Your task to perform on an android device: Go to internet settings Image 0: 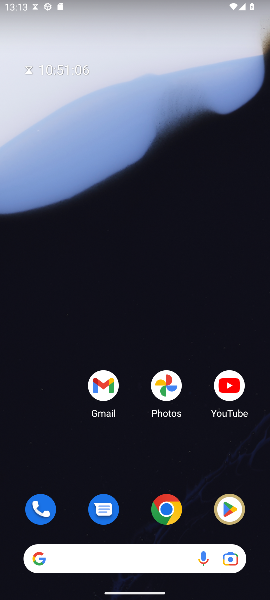
Step 0: press home button
Your task to perform on an android device: Go to internet settings Image 1: 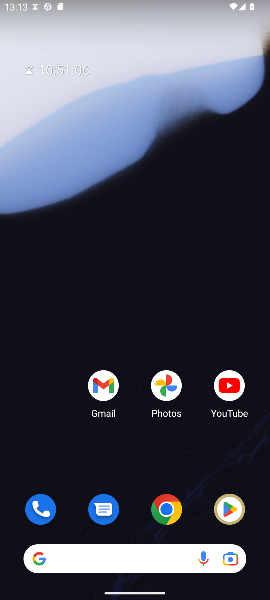
Step 1: drag from (137, 528) to (140, 73)
Your task to perform on an android device: Go to internet settings Image 2: 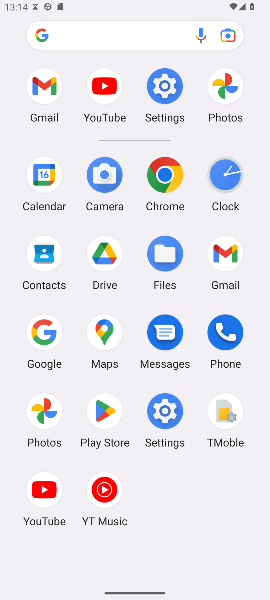
Step 2: click (172, 422)
Your task to perform on an android device: Go to internet settings Image 3: 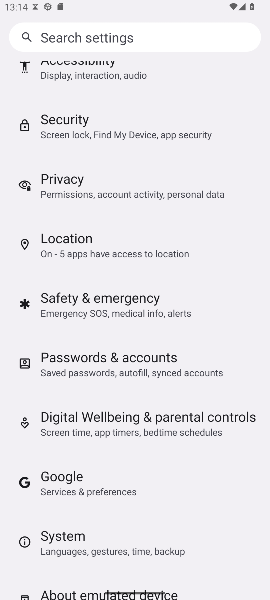
Step 3: drag from (181, 96) to (177, 525)
Your task to perform on an android device: Go to internet settings Image 4: 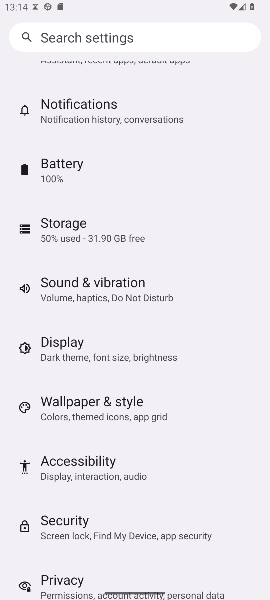
Step 4: drag from (138, 168) to (184, 506)
Your task to perform on an android device: Go to internet settings Image 5: 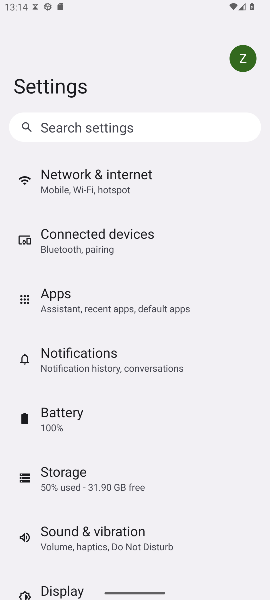
Step 5: click (73, 177)
Your task to perform on an android device: Go to internet settings Image 6: 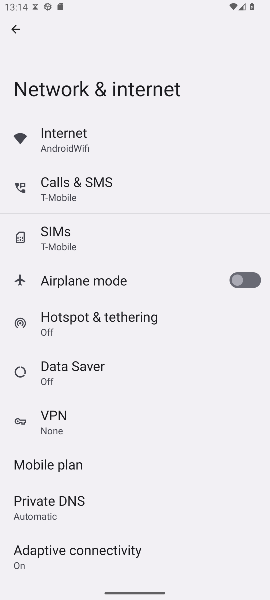
Step 6: task complete